Your task to perform on an android device: Go to CNN.com Image 0: 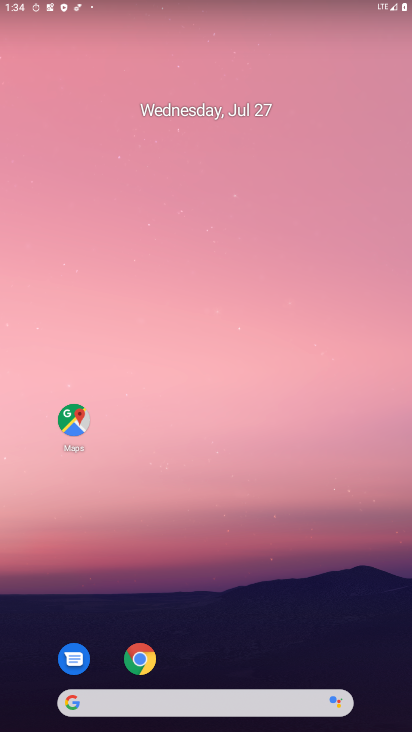
Step 0: click (156, 657)
Your task to perform on an android device: Go to CNN.com Image 1: 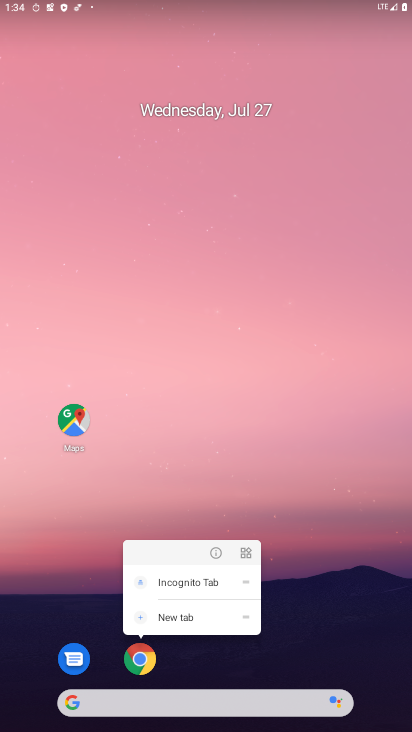
Step 1: click (139, 659)
Your task to perform on an android device: Go to CNN.com Image 2: 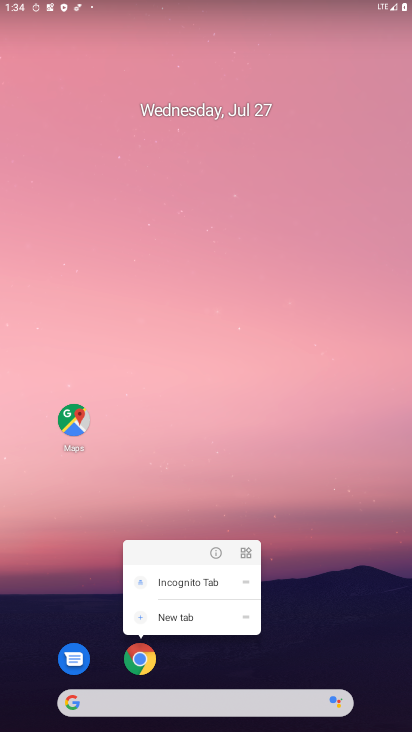
Step 2: click (148, 656)
Your task to perform on an android device: Go to CNN.com Image 3: 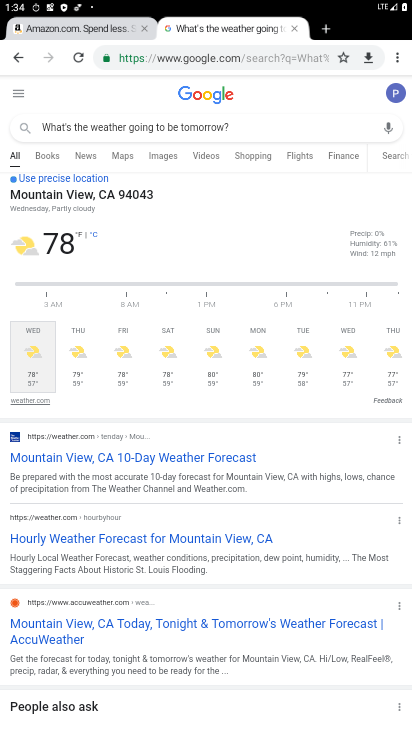
Step 3: click (220, 57)
Your task to perform on an android device: Go to CNN.com Image 4: 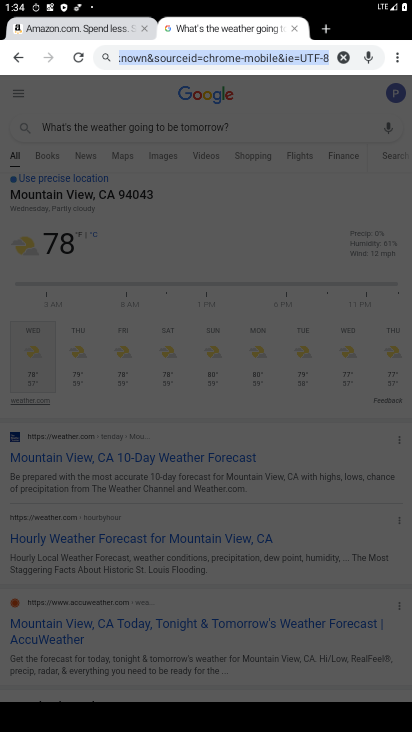
Step 4: type " CNN.com"
Your task to perform on an android device: Go to CNN.com Image 5: 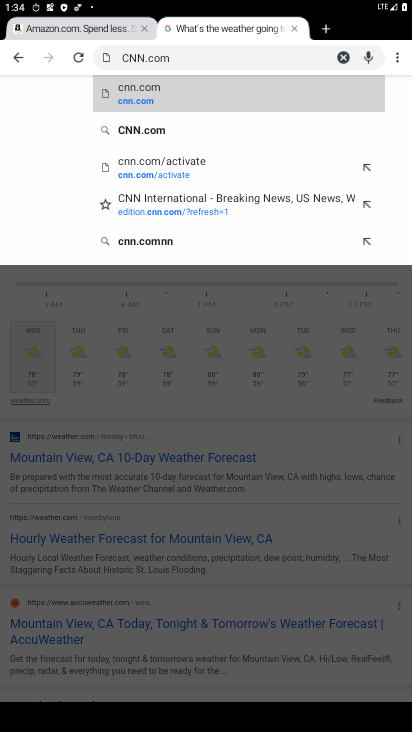
Step 5: click (128, 100)
Your task to perform on an android device: Go to CNN.com Image 6: 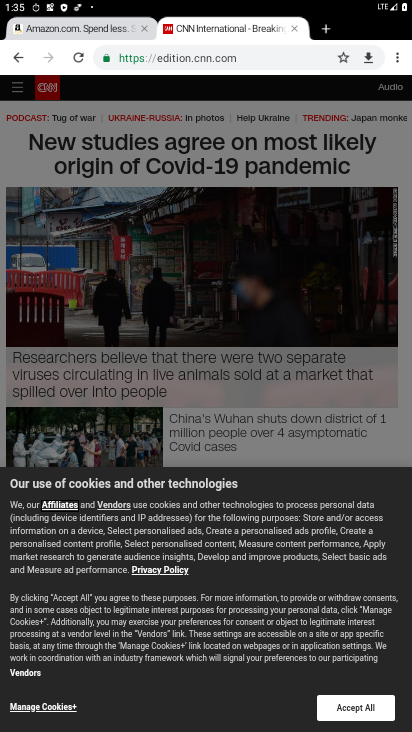
Step 6: task complete